Your task to perform on an android device: make emails show in primary in the gmail app Image 0: 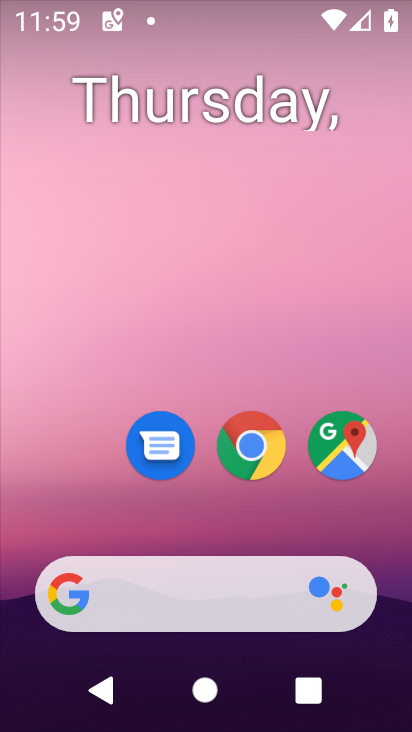
Step 0: drag from (308, 641) to (219, 100)
Your task to perform on an android device: make emails show in primary in the gmail app Image 1: 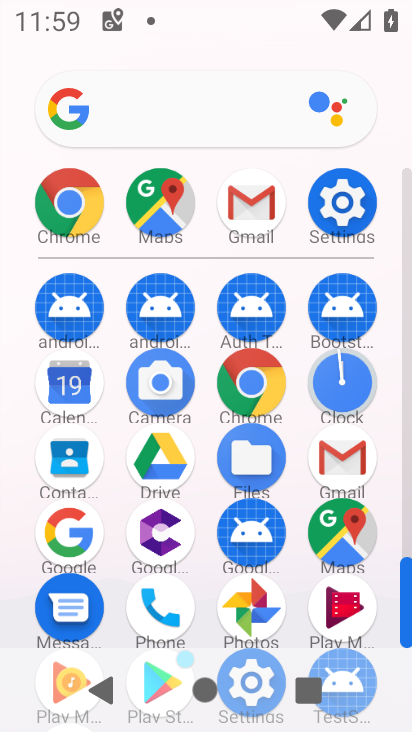
Step 1: click (337, 451)
Your task to perform on an android device: make emails show in primary in the gmail app Image 2: 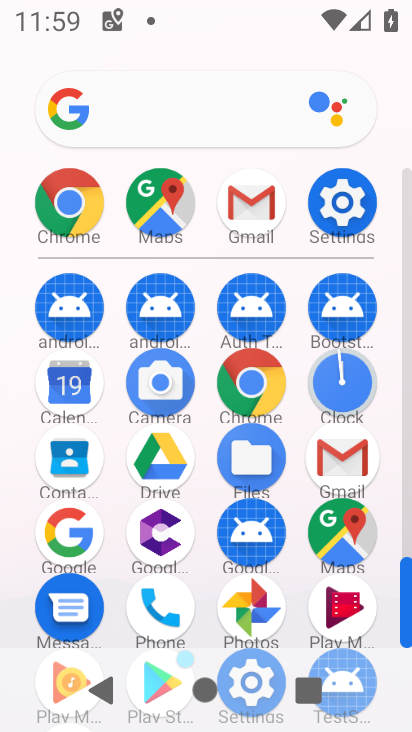
Step 2: click (337, 451)
Your task to perform on an android device: make emails show in primary in the gmail app Image 3: 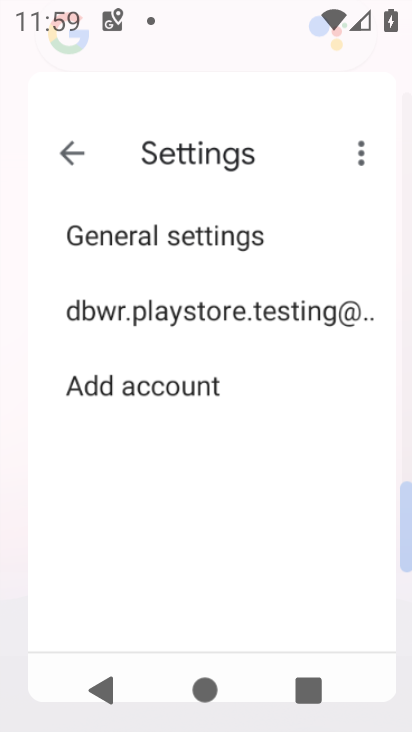
Step 3: click (337, 451)
Your task to perform on an android device: make emails show in primary in the gmail app Image 4: 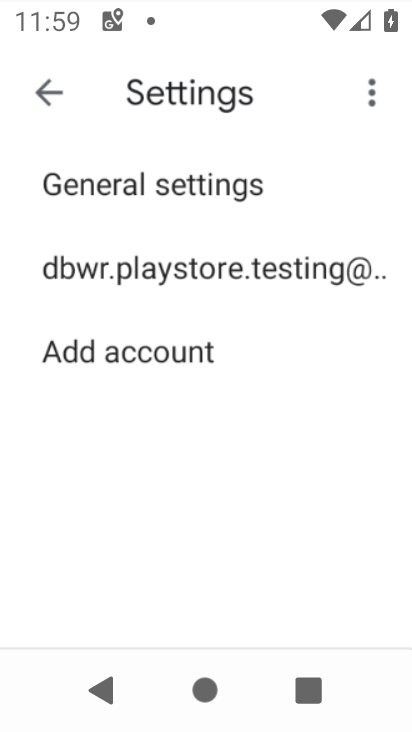
Step 4: click (337, 451)
Your task to perform on an android device: make emails show in primary in the gmail app Image 5: 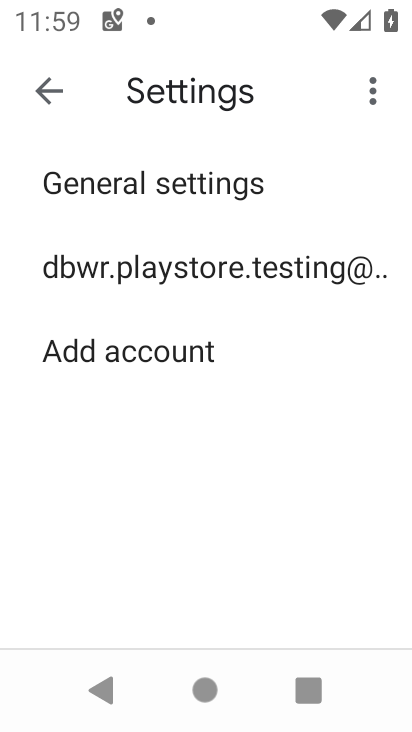
Step 5: click (179, 267)
Your task to perform on an android device: make emails show in primary in the gmail app Image 6: 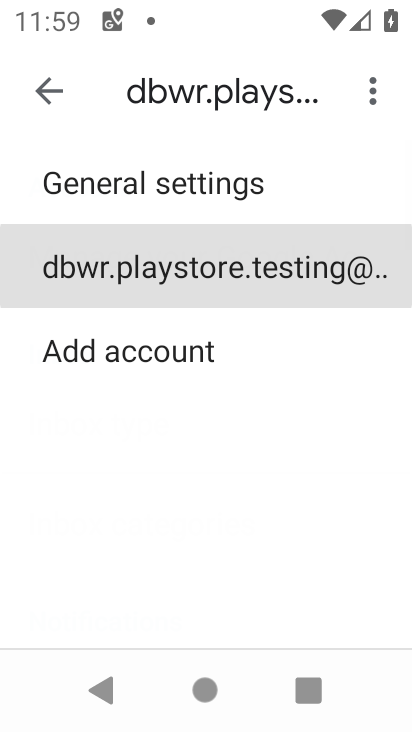
Step 6: click (179, 267)
Your task to perform on an android device: make emails show in primary in the gmail app Image 7: 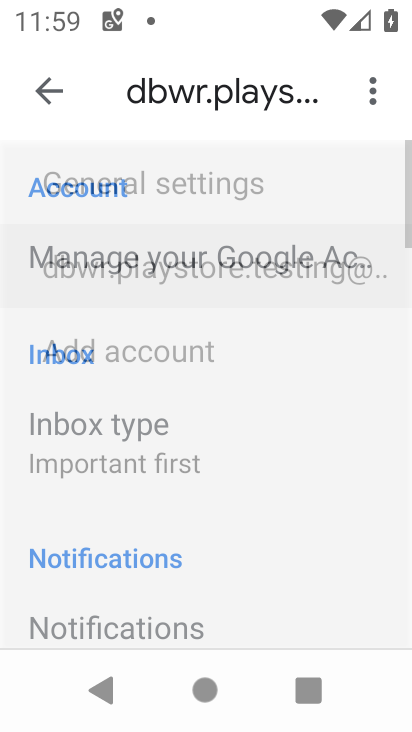
Step 7: click (179, 267)
Your task to perform on an android device: make emails show in primary in the gmail app Image 8: 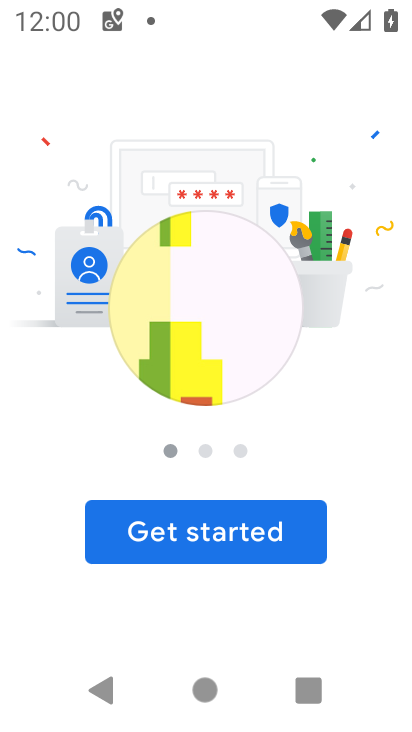
Step 8: click (213, 512)
Your task to perform on an android device: make emails show in primary in the gmail app Image 9: 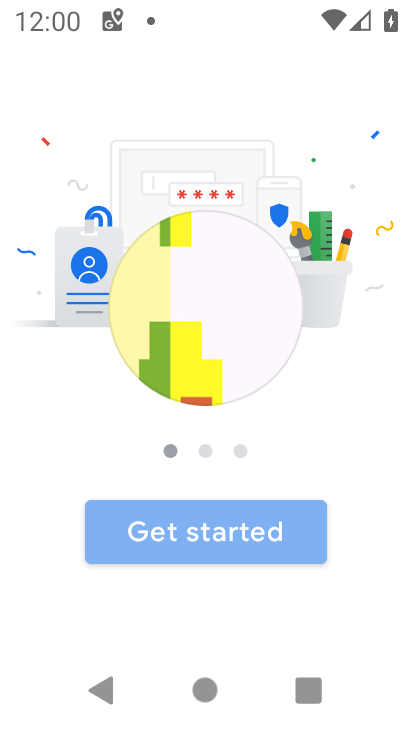
Step 9: click (228, 523)
Your task to perform on an android device: make emails show in primary in the gmail app Image 10: 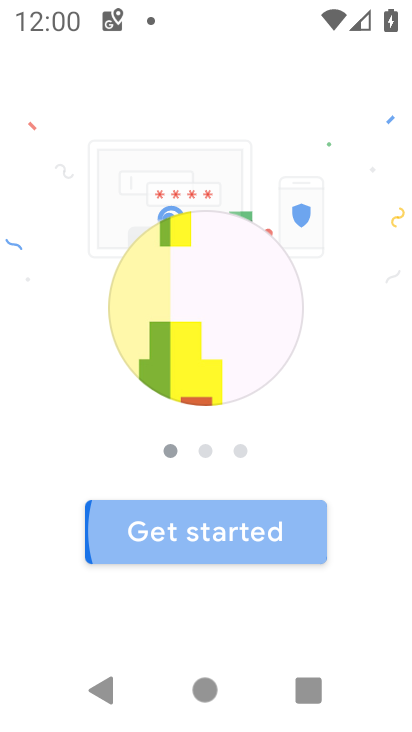
Step 10: click (230, 525)
Your task to perform on an android device: make emails show in primary in the gmail app Image 11: 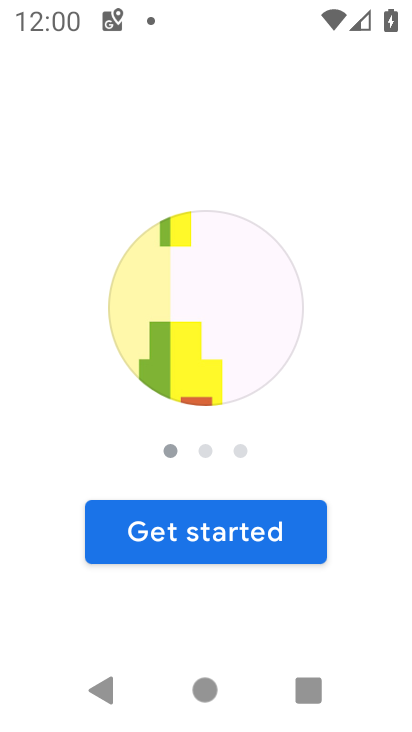
Step 11: click (230, 525)
Your task to perform on an android device: make emails show in primary in the gmail app Image 12: 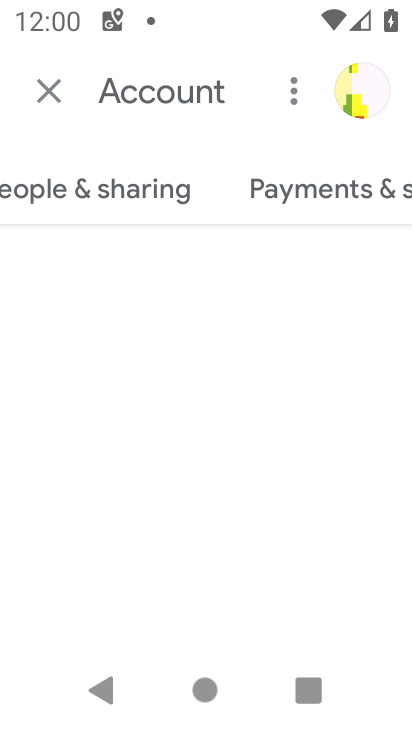
Step 12: click (230, 525)
Your task to perform on an android device: make emails show in primary in the gmail app Image 13: 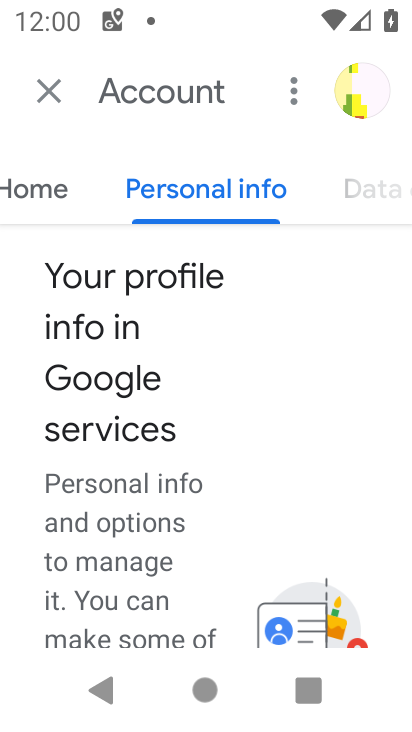
Step 13: click (42, 95)
Your task to perform on an android device: make emails show in primary in the gmail app Image 14: 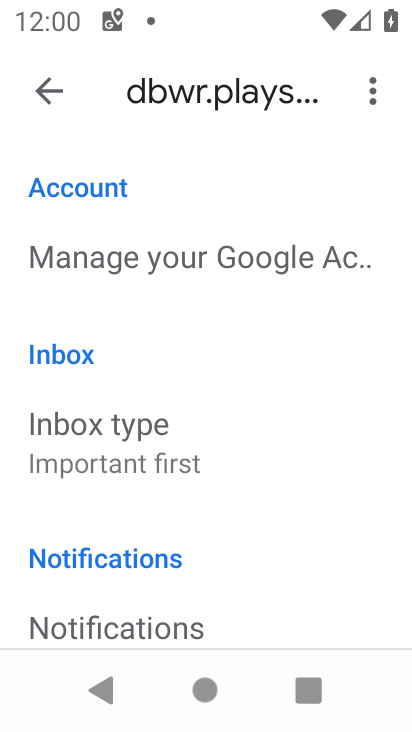
Step 14: click (115, 450)
Your task to perform on an android device: make emails show in primary in the gmail app Image 15: 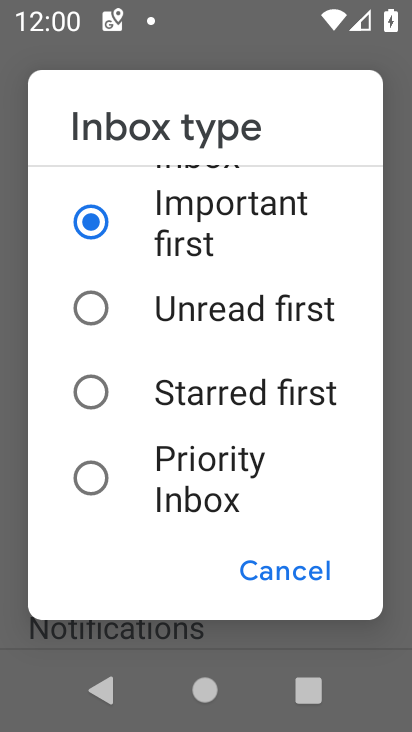
Step 15: drag from (128, 360) to (121, 139)
Your task to perform on an android device: make emails show in primary in the gmail app Image 16: 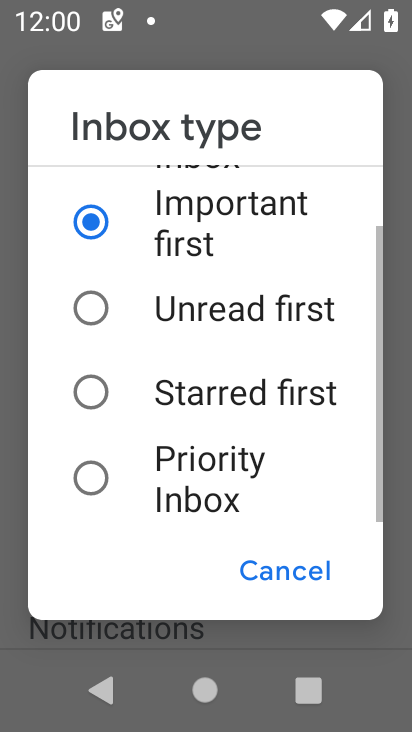
Step 16: drag from (133, 223) to (114, 485)
Your task to perform on an android device: make emails show in primary in the gmail app Image 17: 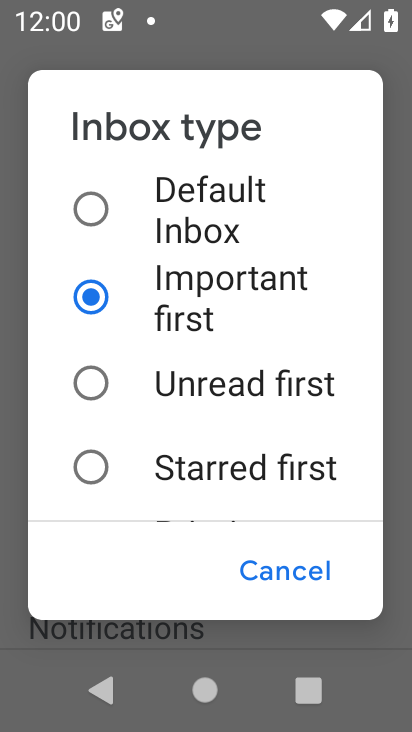
Step 17: click (89, 226)
Your task to perform on an android device: make emails show in primary in the gmail app Image 18: 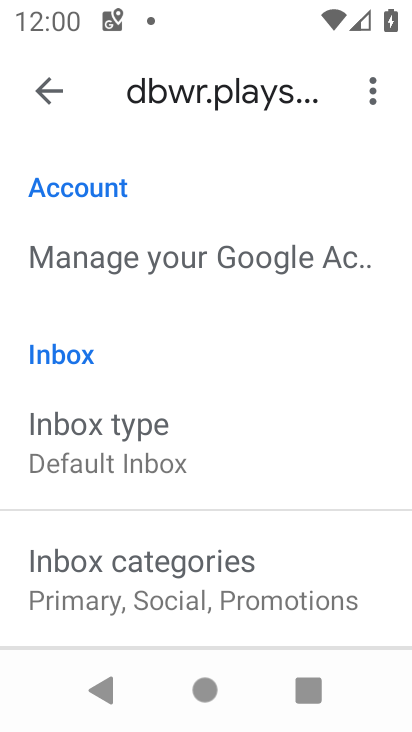
Step 18: click (161, 585)
Your task to perform on an android device: make emails show in primary in the gmail app Image 19: 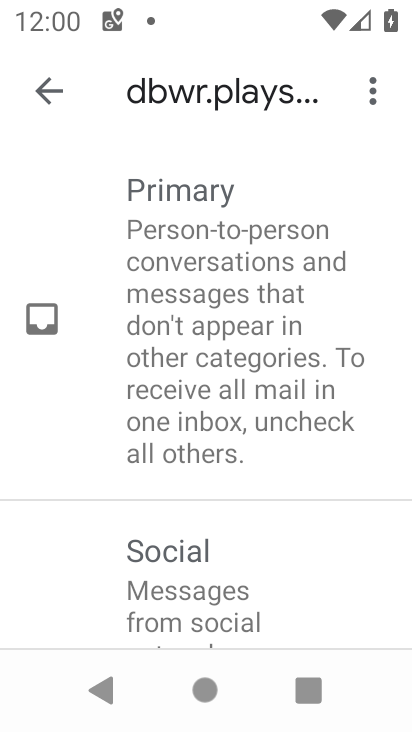
Step 19: click (169, 299)
Your task to perform on an android device: make emails show in primary in the gmail app Image 20: 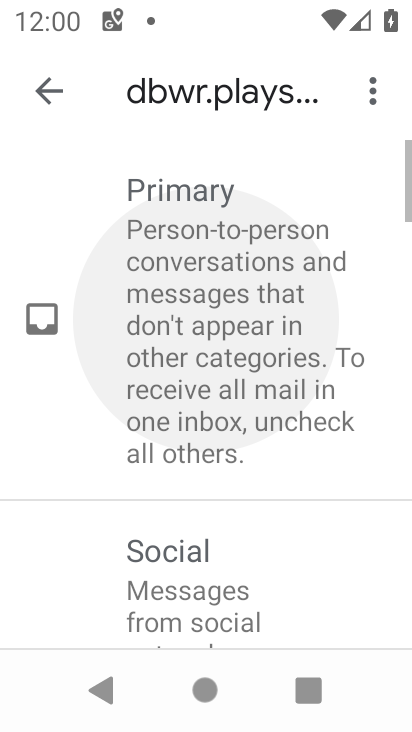
Step 20: click (170, 300)
Your task to perform on an android device: make emails show in primary in the gmail app Image 21: 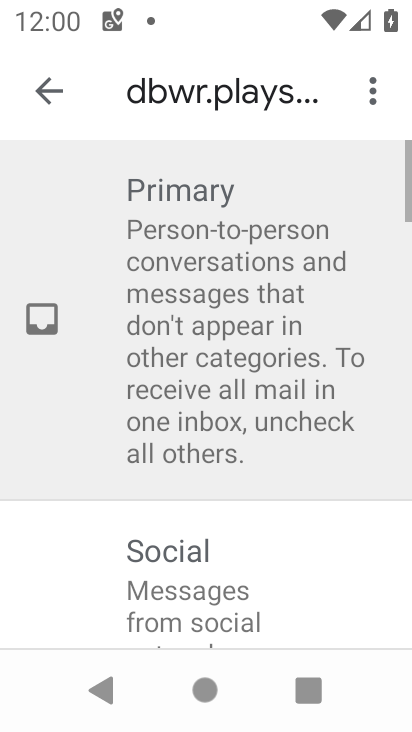
Step 21: click (170, 300)
Your task to perform on an android device: make emails show in primary in the gmail app Image 22: 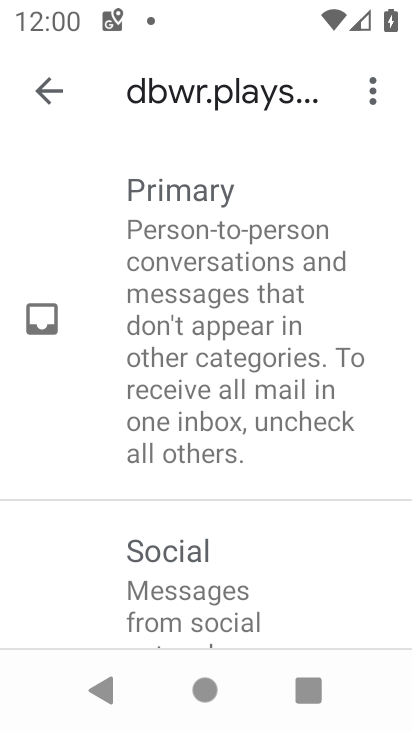
Step 22: click (175, 297)
Your task to perform on an android device: make emails show in primary in the gmail app Image 23: 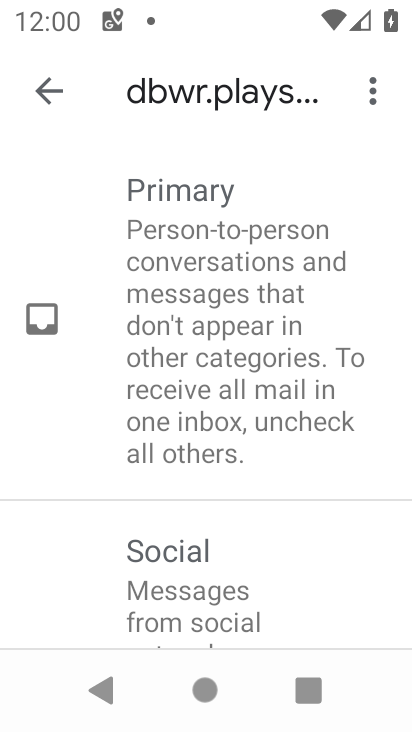
Step 23: click (175, 297)
Your task to perform on an android device: make emails show in primary in the gmail app Image 24: 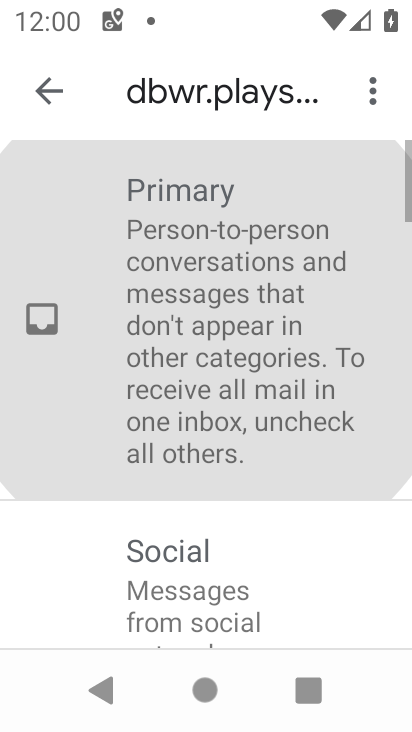
Step 24: click (175, 297)
Your task to perform on an android device: make emails show in primary in the gmail app Image 25: 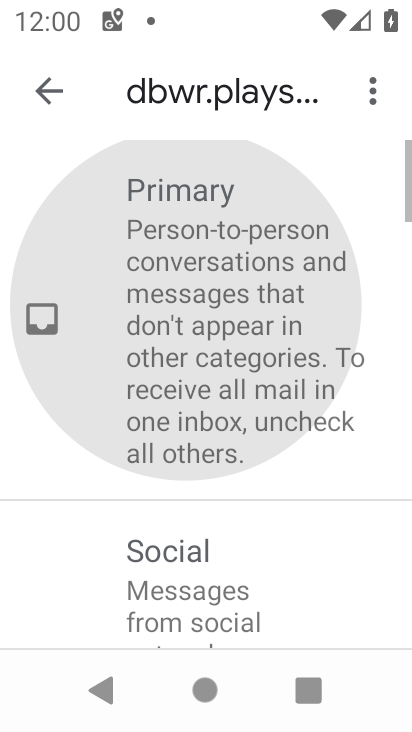
Step 25: click (175, 297)
Your task to perform on an android device: make emails show in primary in the gmail app Image 26: 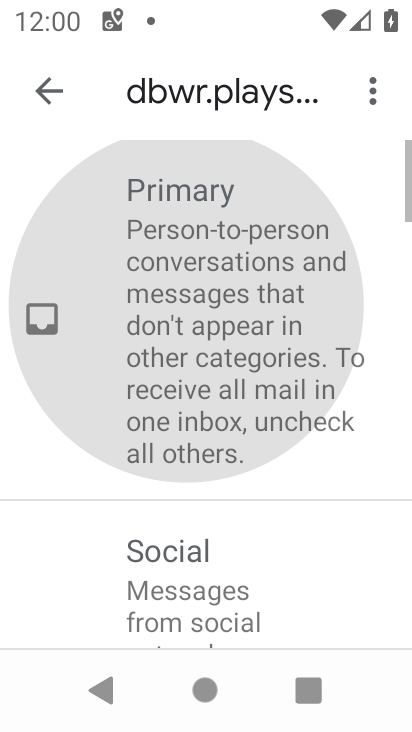
Step 26: click (175, 297)
Your task to perform on an android device: make emails show in primary in the gmail app Image 27: 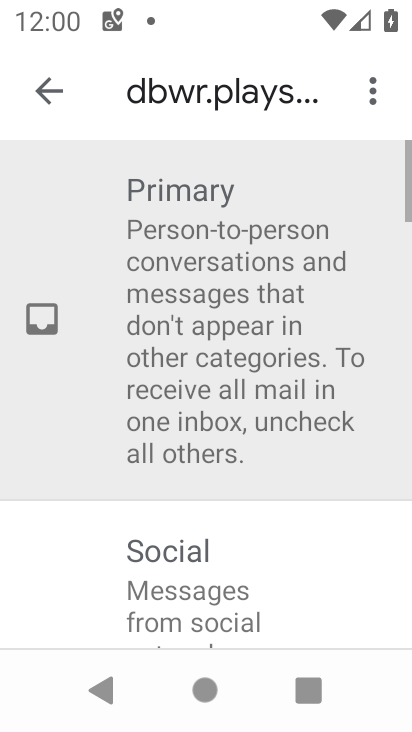
Step 27: click (176, 296)
Your task to perform on an android device: make emails show in primary in the gmail app Image 28: 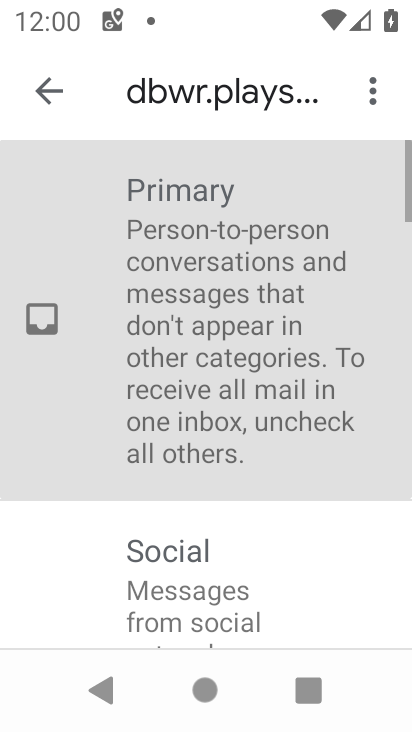
Step 28: click (176, 296)
Your task to perform on an android device: make emails show in primary in the gmail app Image 29: 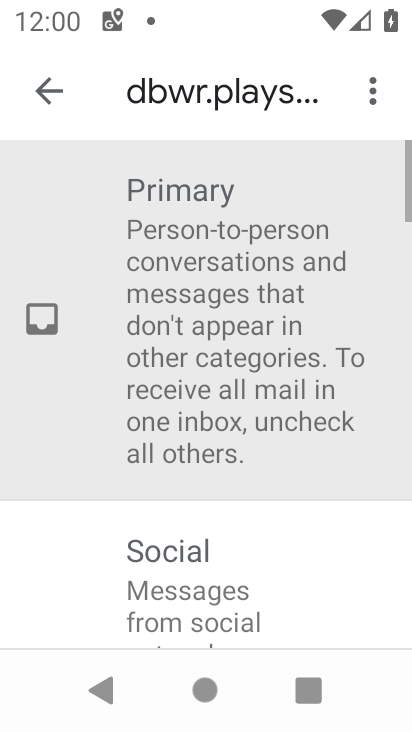
Step 29: click (176, 304)
Your task to perform on an android device: make emails show in primary in the gmail app Image 30: 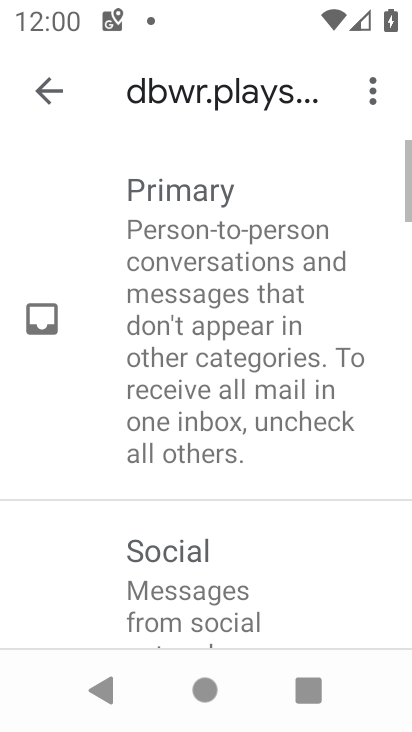
Step 30: click (176, 310)
Your task to perform on an android device: make emails show in primary in the gmail app Image 31: 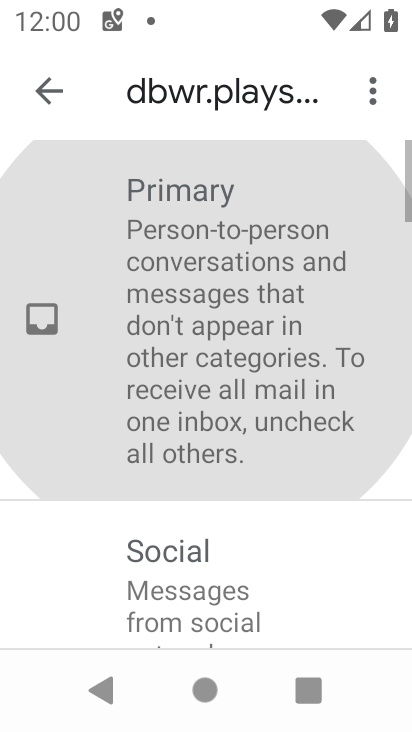
Step 31: click (177, 321)
Your task to perform on an android device: make emails show in primary in the gmail app Image 32: 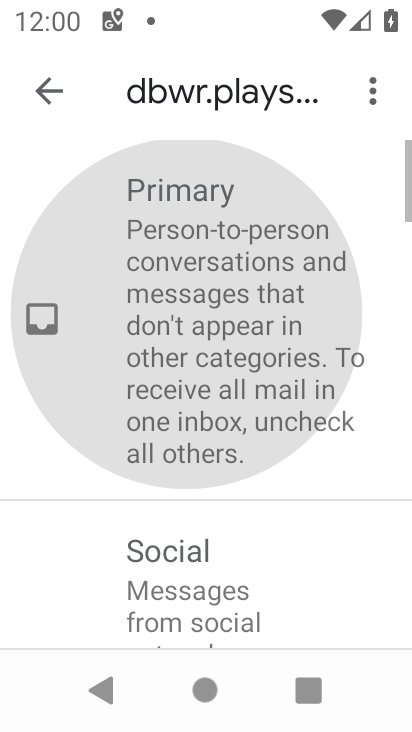
Step 32: click (177, 321)
Your task to perform on an android device: make emails show in primary in the gmail app Image 33: 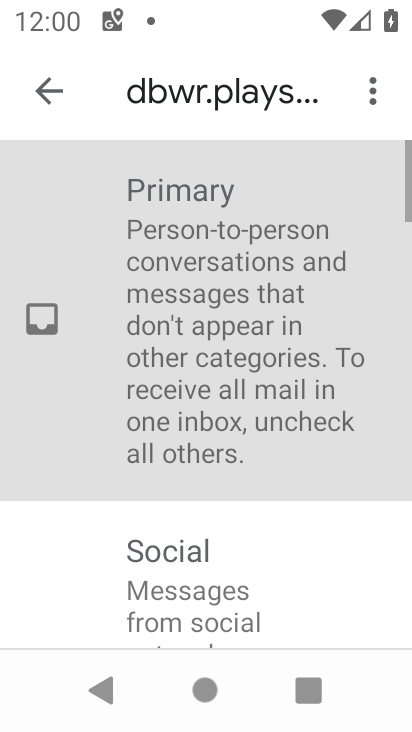
Step 33: click (182, 340)
Your task to perform on an android device: make emails show in primary in the gmail app Image 34: 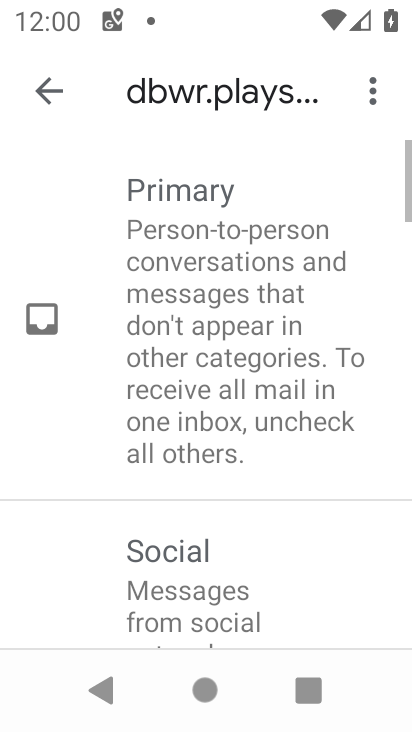
Step 34: click (181, 341)
Your task to perform on an android device: make emails show in primary in the gmail app Image 35: 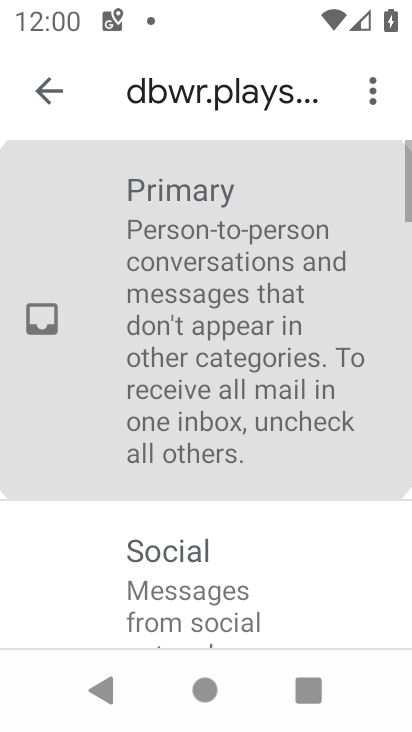
Step 35: click (179, 341)
Your task to perform on an android device: make emails show in primary in the gmail app Image 36: 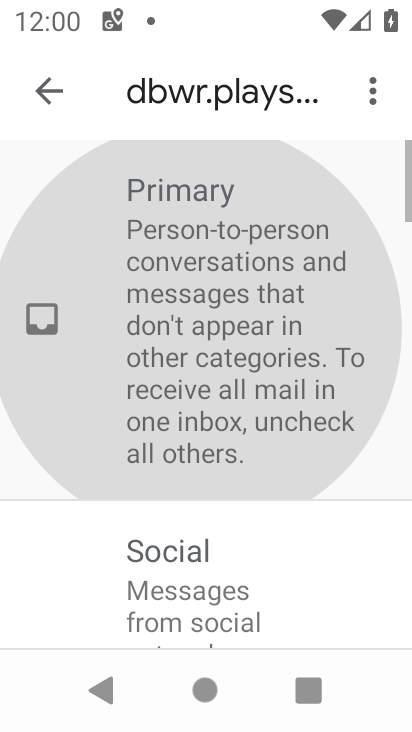
Step 36: click (179, 341)
Your task to perform on an android device: make emails show in primary in the gmail app Image 37: 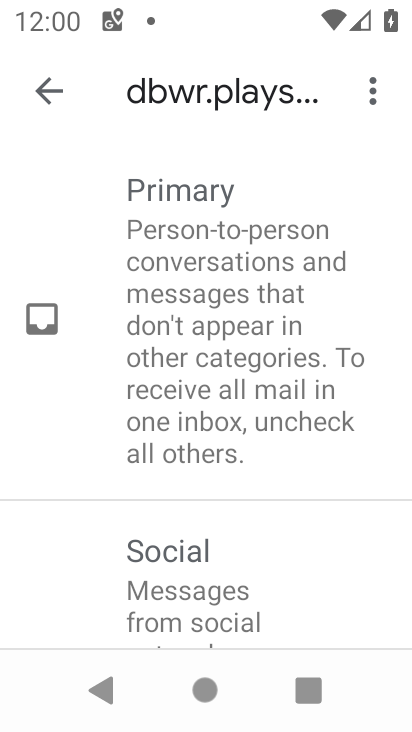
Step 37: click (204, 289)
Your task to perform on an android device: make emails show in primary in the gmail app Image 38: 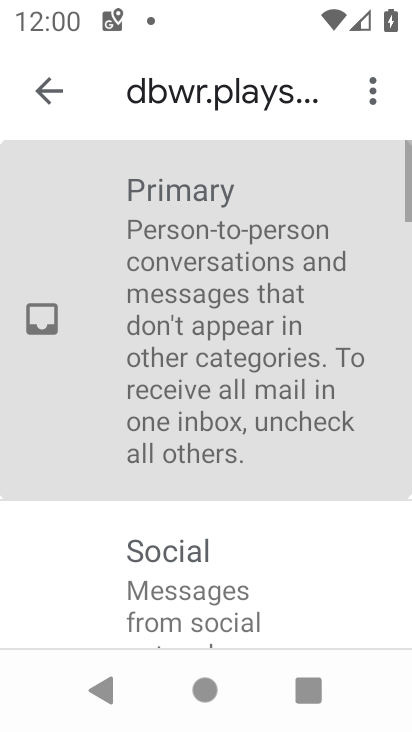
Step 38: click (201, 284)
Your task to perform on an android device: make emails show in primary in the gmail app Image 39: 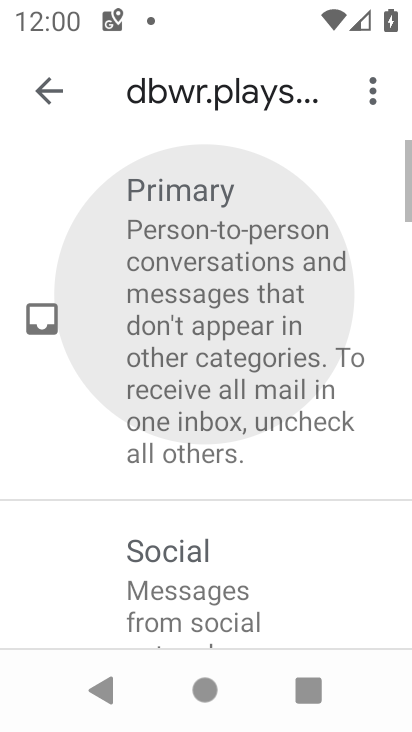
Step 39: click (202, 282)
Your task to perform on an android device: make emails show in primary in the gmail app Image 40: 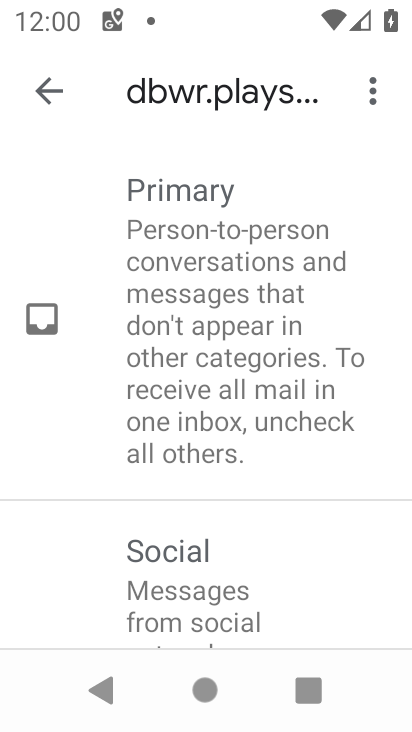
Step 40: task complete